Your task to perform on an android device: turn off airplane mode Image 0: 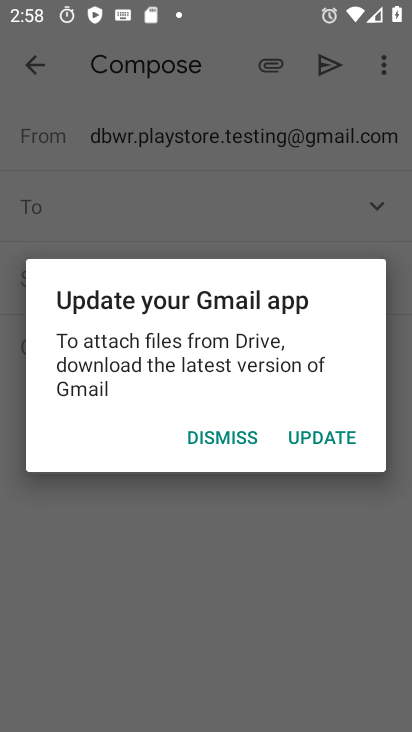
Step 0: press home button
Your task to perform on an android device: turn off airplane mode Image 1: 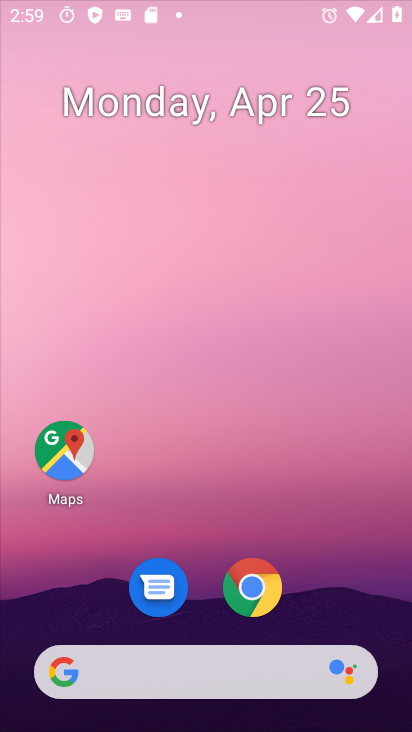
Step 1: task complete